Your task to perform on an android device: What is the recent news? Image 0: 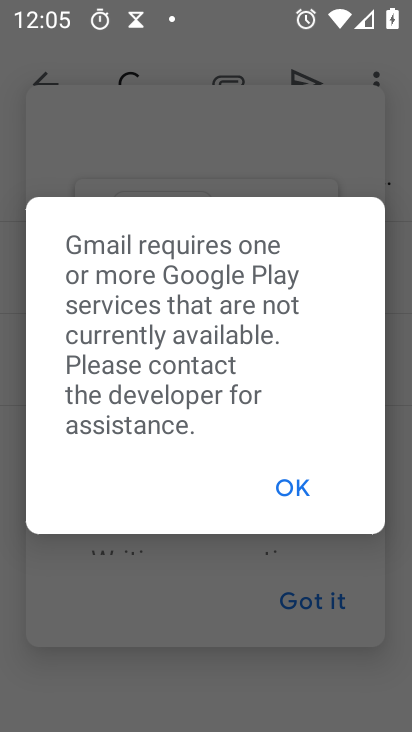
Step 0: press home button
Your task to perform on an android device: What is the recent news? Image 1: 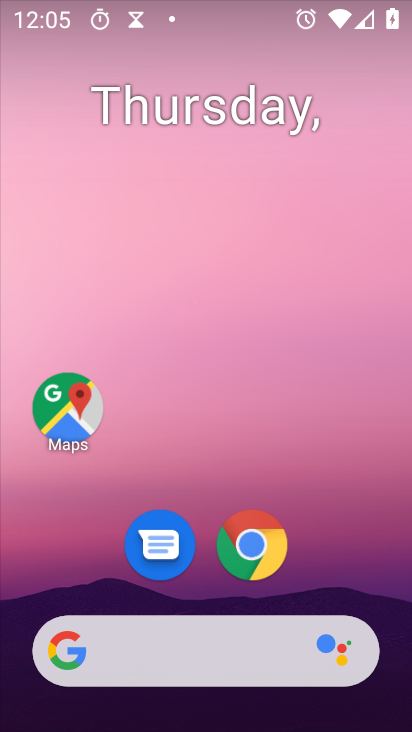
Step 1: click (77, 654)
Your task to perform on an android device: What is the recent news? Image 2: 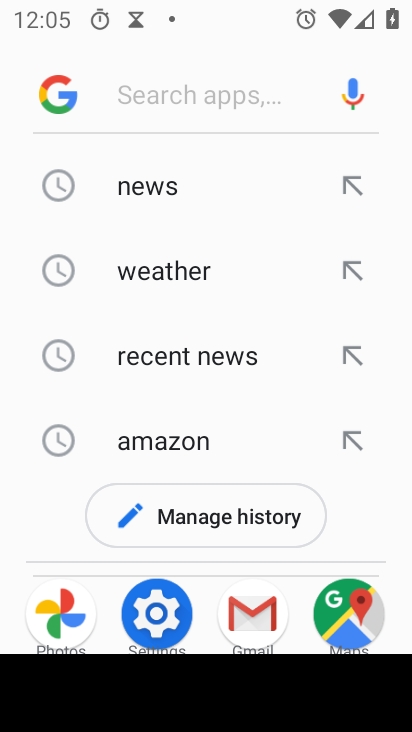
Step 2: click (149, 368)
Your task to perform on an android device: What is the recent news? Image 3: 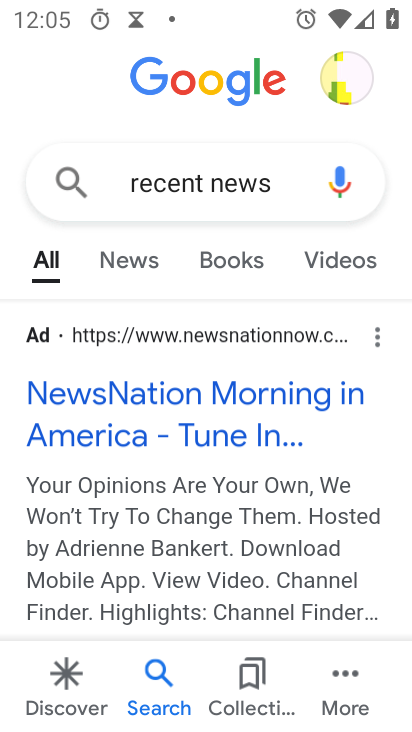
Step 3: click (148, 261)
Your task to perform on an android device: What is the recent news? Image 4: 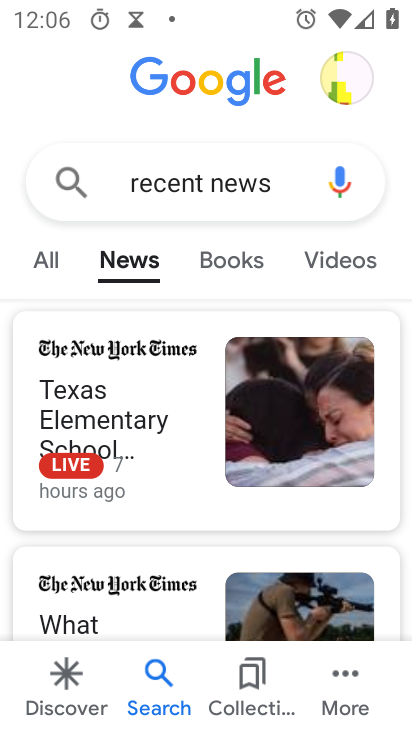
Step 4: task complete